Your task to perform on an android device: Open eBay Image 0: 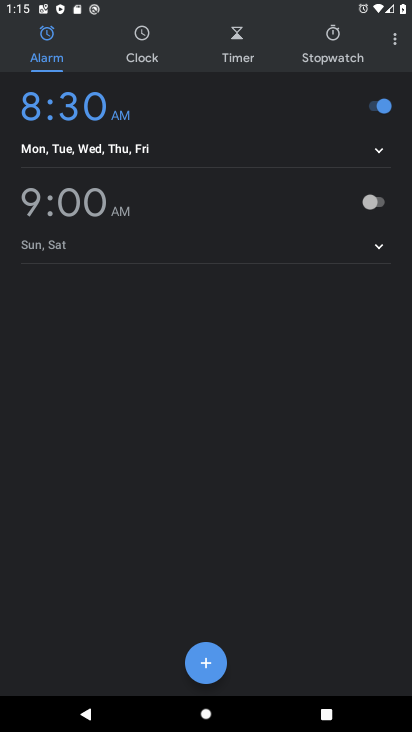
Step 0: drag from (320, 573) to (380, 162)
Your task to perform on an android device: Open eBay Image 1: 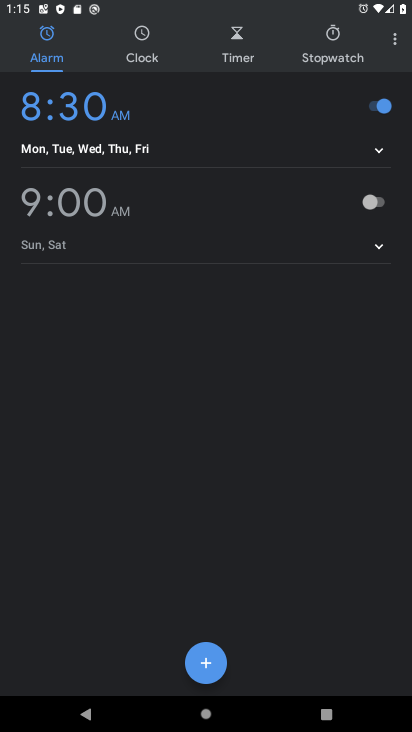
Step 1: press home button
Your task to perform on an android device: Open eBay Image 2: 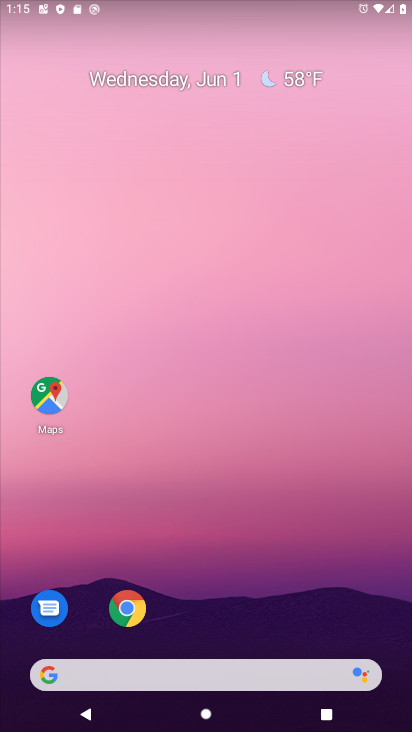
Step 2: drag from (253, 557) to (266, 102)
Your task to perform on an android device: Open eBay Image 3: 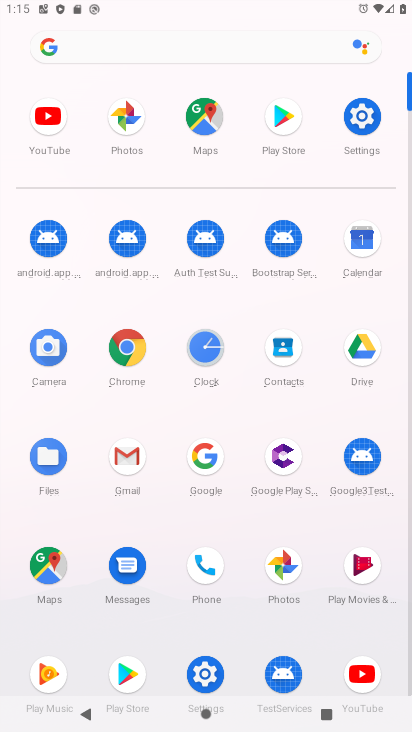
Step 3: click (109, 339)
Your task to perform on an android device: Open eBay Image 4: 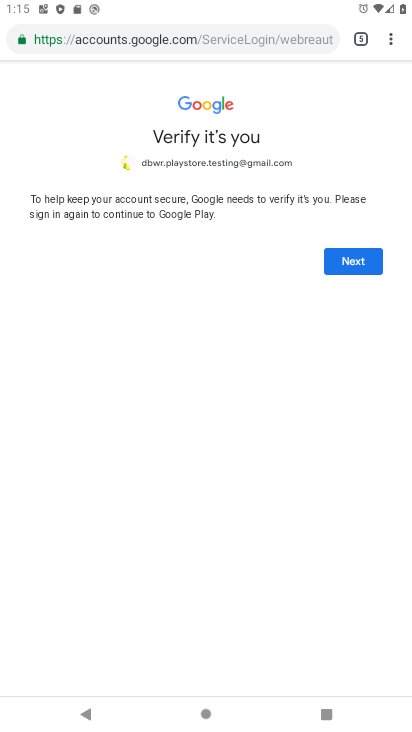
Step 4: click (360, 32)
Your task to perform on an android device: Open eBay Image 5: 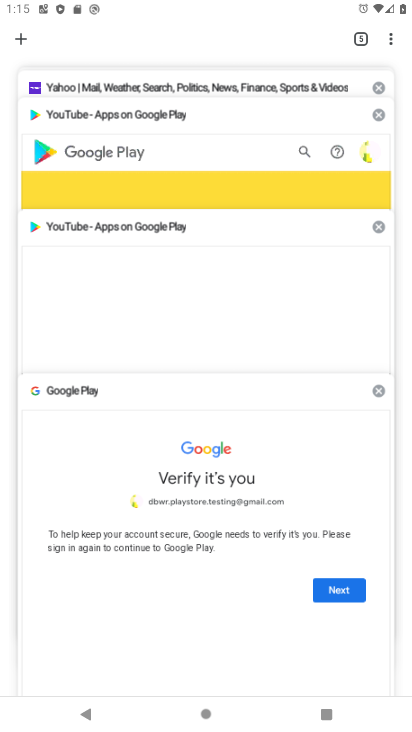
Step 5: drag from (278, 92) to (302, 489)
Your task to perform on an android device: Open eBay Image 6: 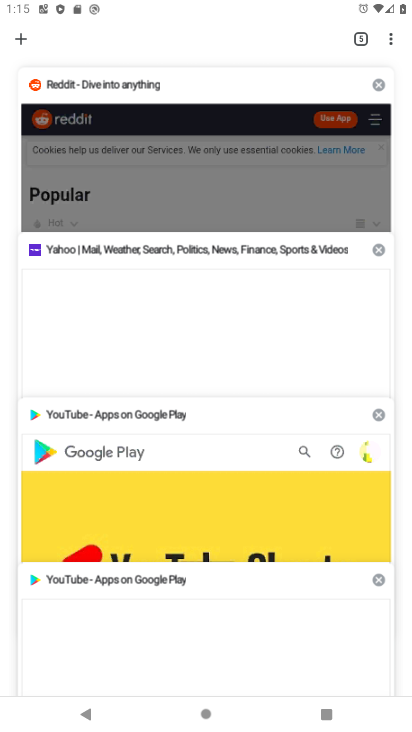
Step 6: drag from (202, 87) to (225, 493)
Your task to perform on an android device: Open eBay Image 7: 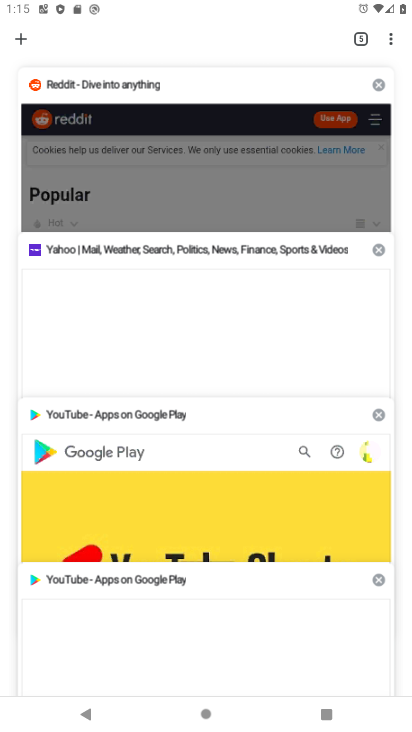
Step 7: click (16, 20)
Your task to perform on an android device: Open eBay Image 8: 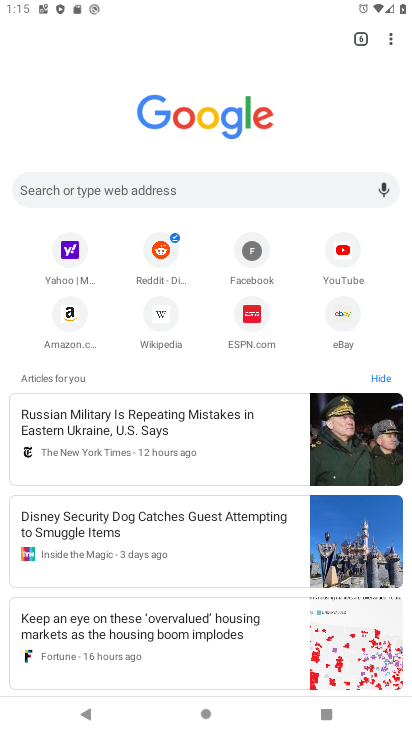
Step 8: click (354, 300)
Your task to perform on an android device: Open eBay Image 9: 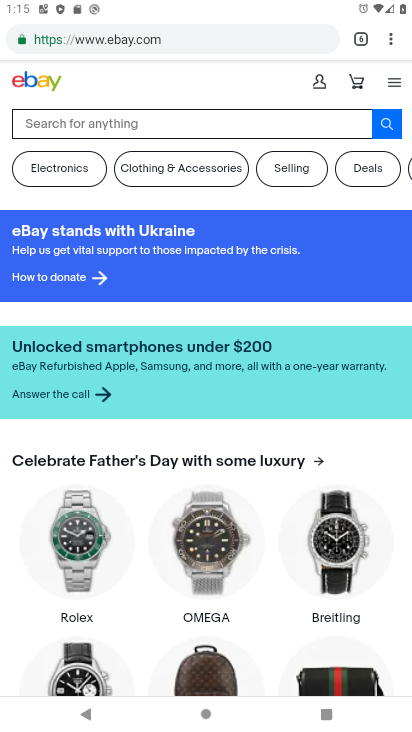
Step 9: task complete